Your task to perform on an android device: Go to location settings Image 0: 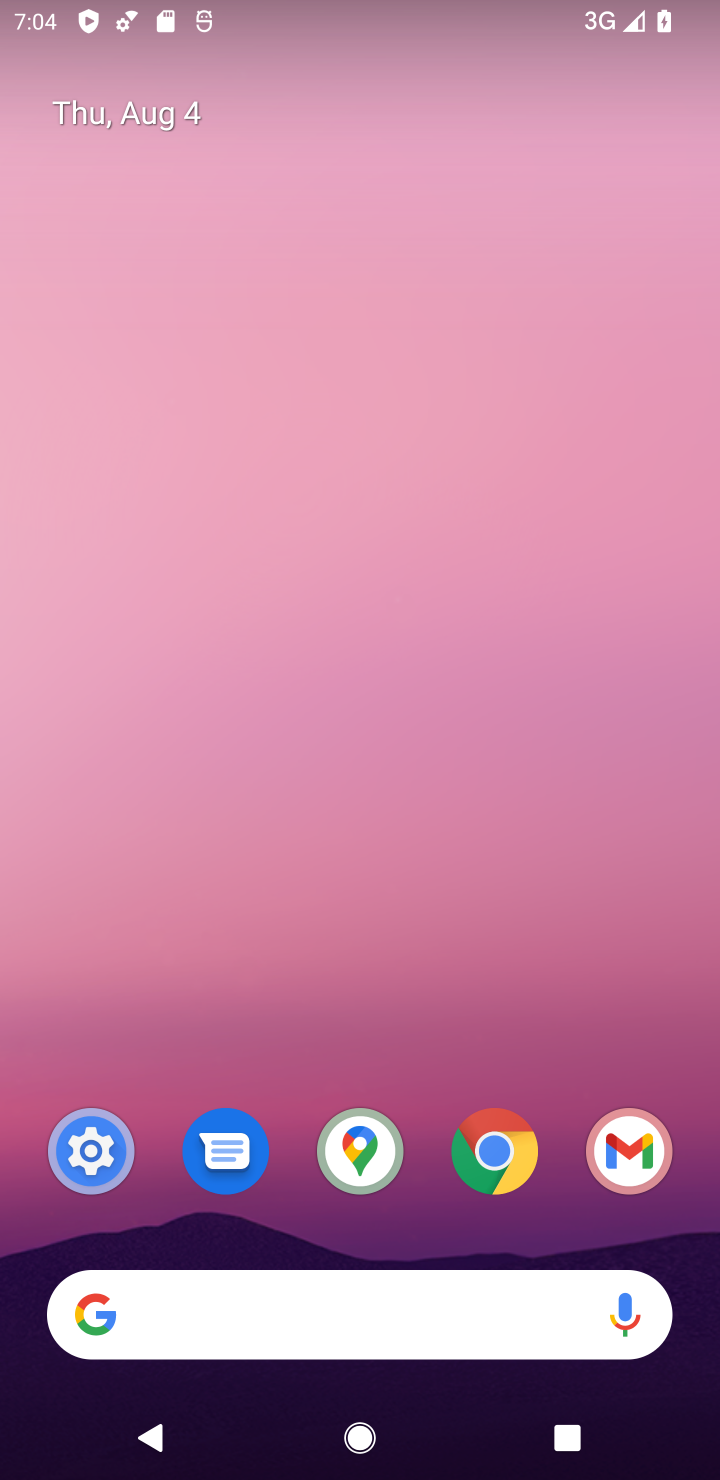
Step 0: click (88, 1138)
Your task to perform on an android device: Go to location settings Image 1: 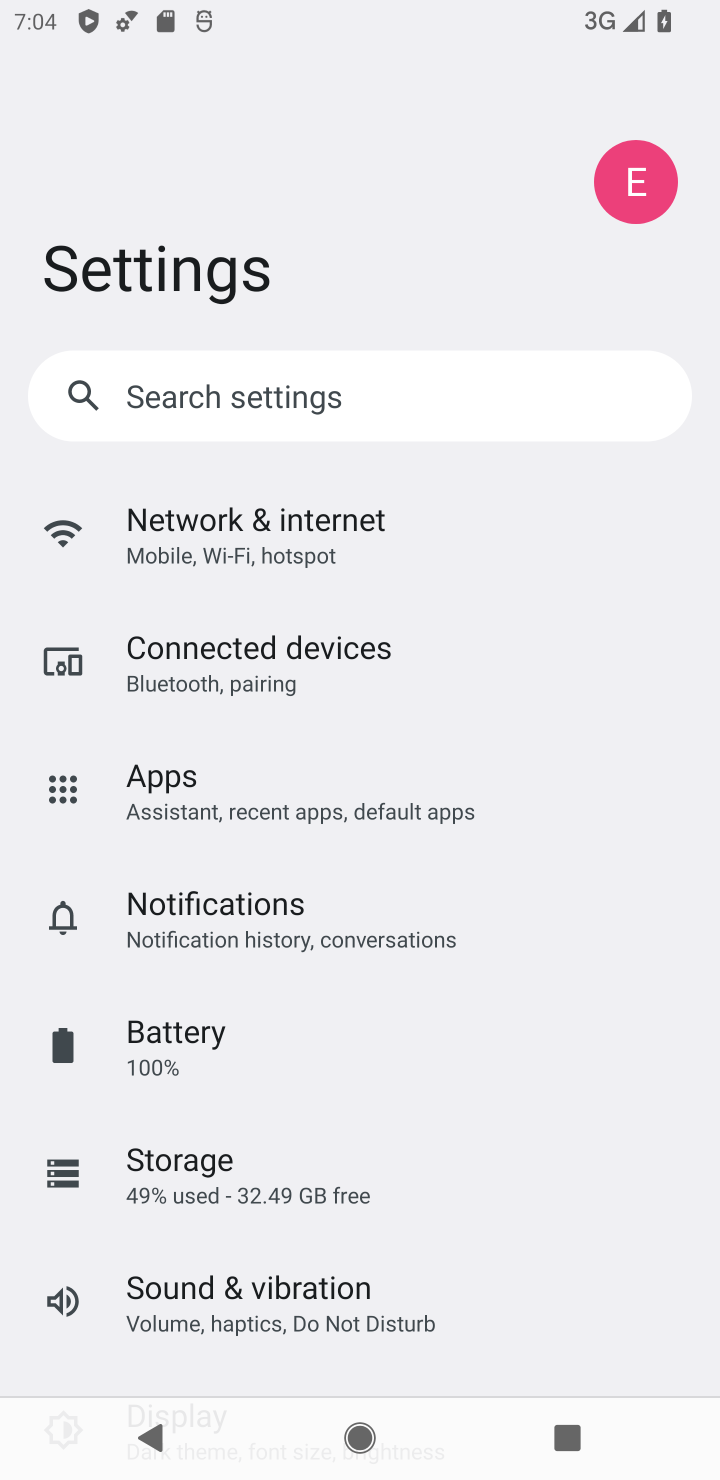
Step 1: drag from (574, 1310) to (579, 181)
Your task to perform on an android device: Go to location settings Image 2: 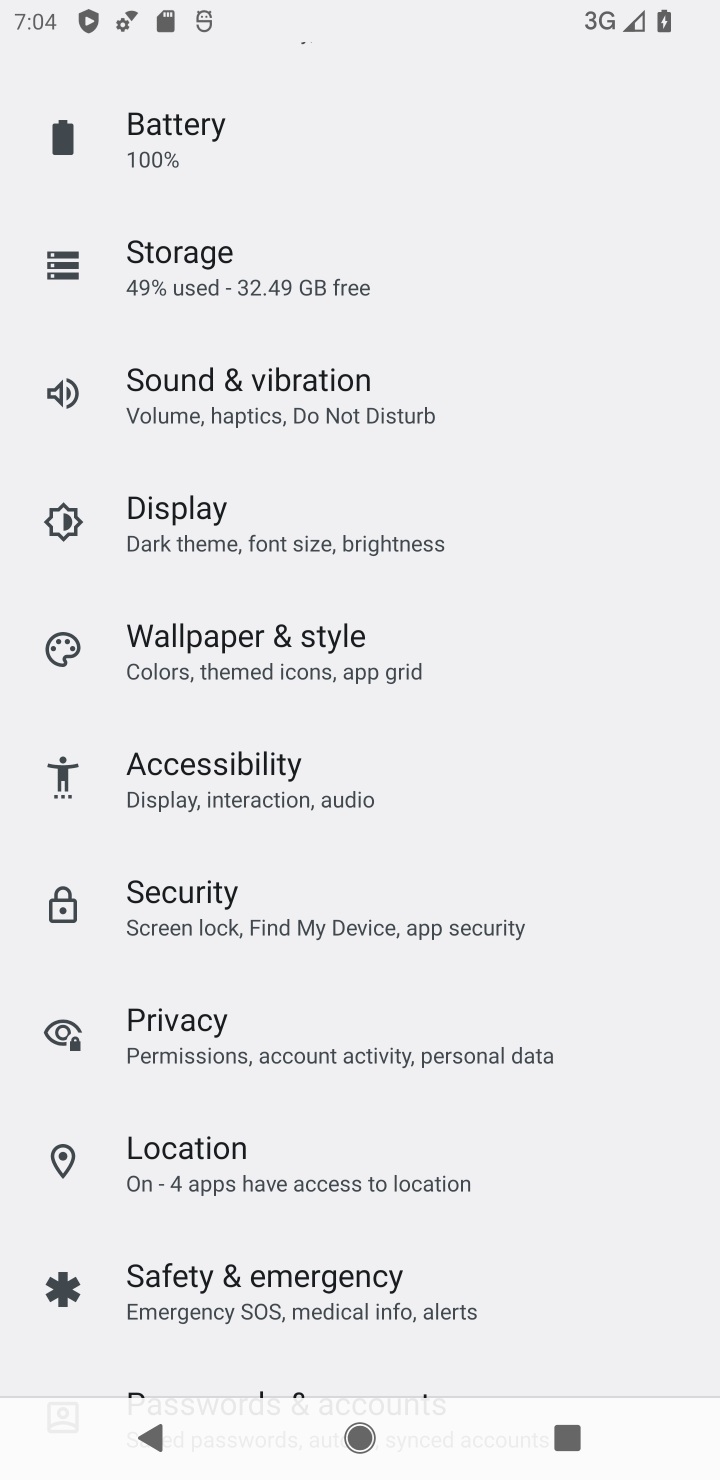
Step 2: click (494, 1176)
Your task to perform on an android device: Go to location settings Image 3: 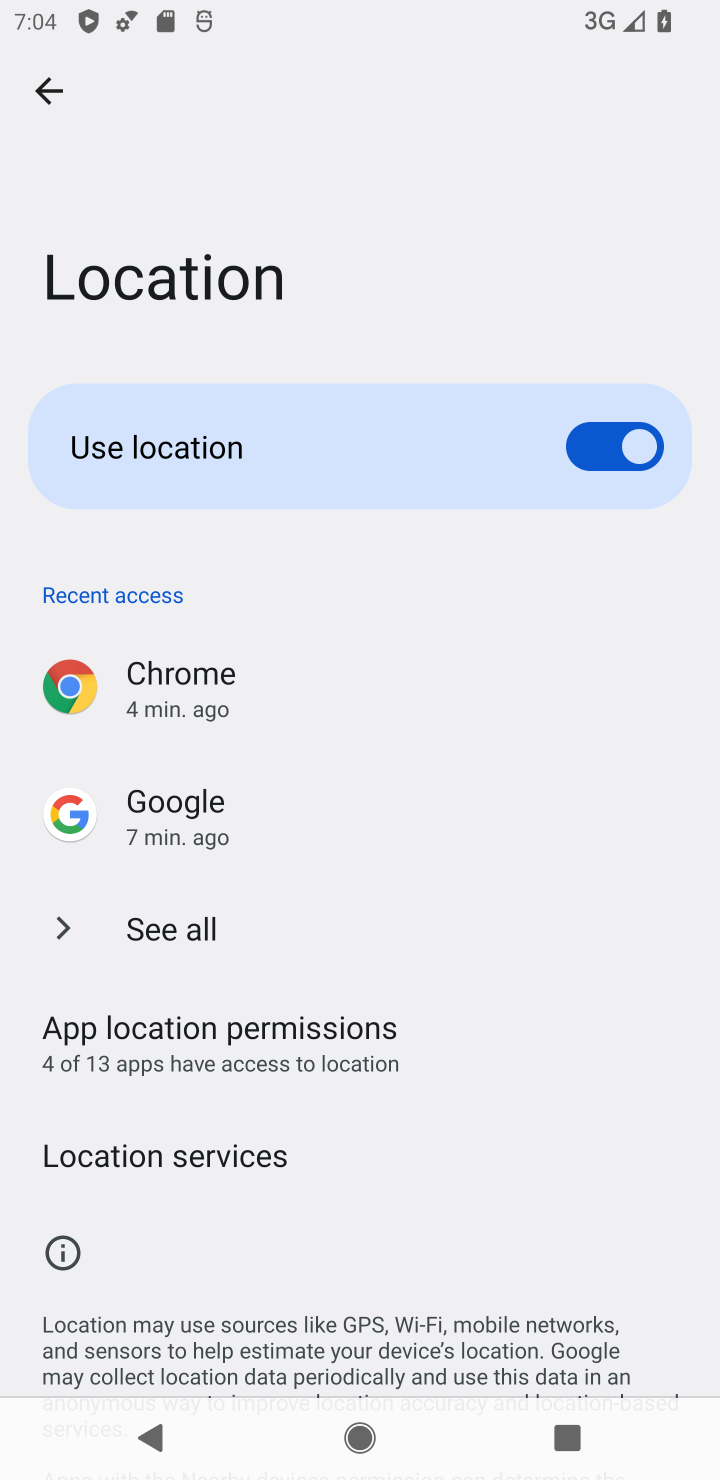
Step 3: task complete